Your task to perform on an android device: Open the map Image 0: 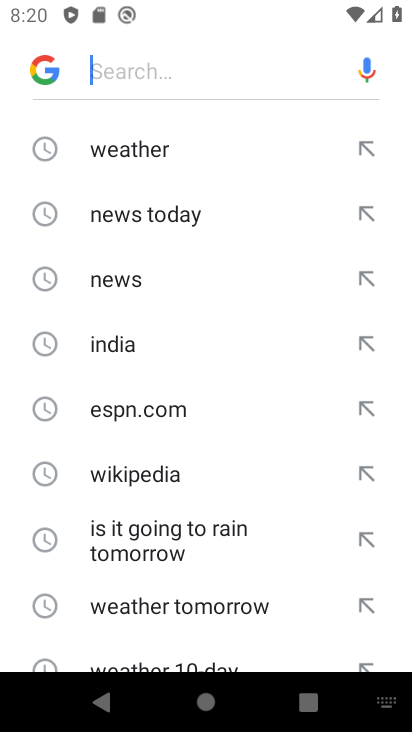
Step 0: press home button
Your task to perform on an android device: Open the map Image 1: 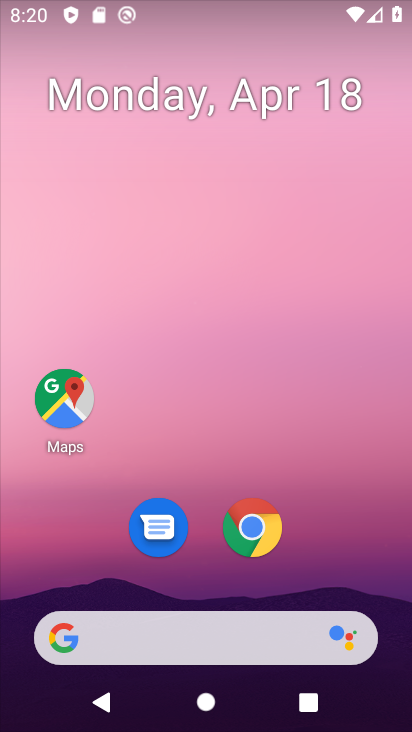
Step 1: click (53, 391)
Your task to perform on an android device: Open the map Image 2: 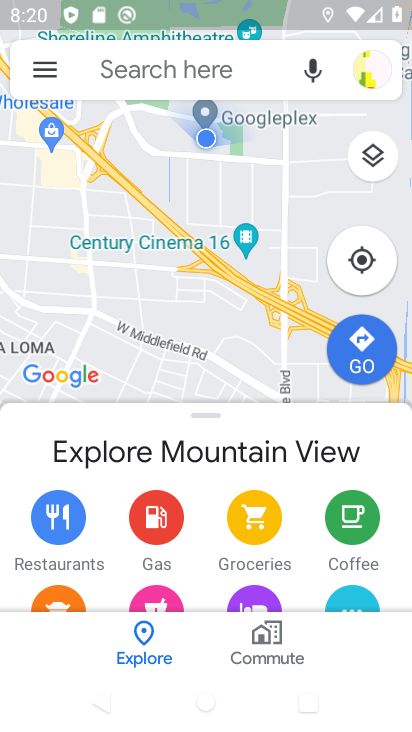
Step 2: task complete